Your task to perform on an android device: turn on sleep mode Image 0: 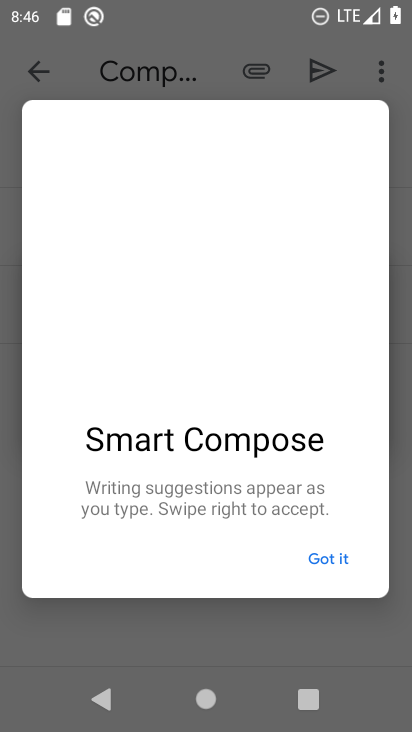
Step 0: press home button
Your task to perform on an android device: turn on sleep mode Image 1: 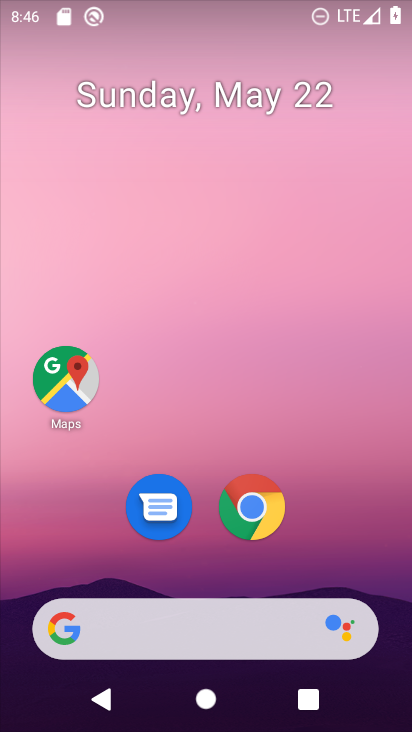
Step 1: drag from (161, 711) to (215, 46)
Your task to perform on an android device: turn on sleep mode Image 2: 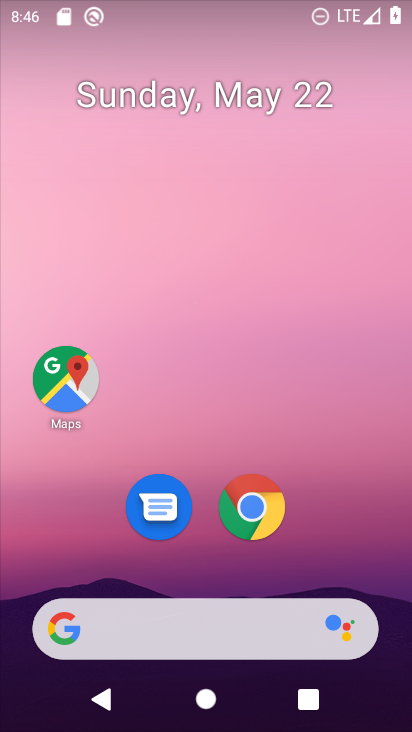
Step 2: drag from (163, 687) to (201, 96)
Your task to perform on an android device: turn on sleep mode Image 3: 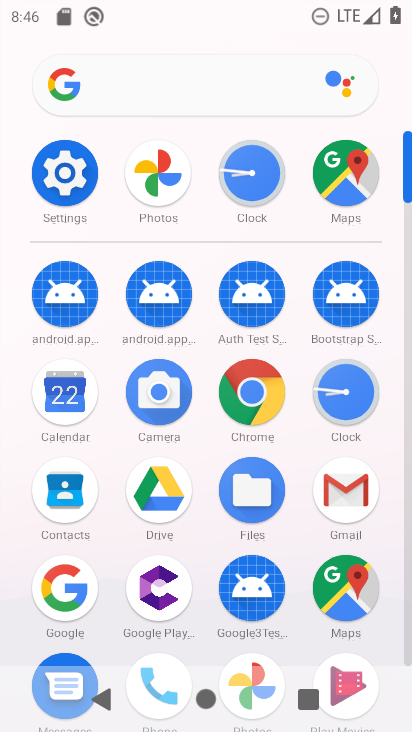
Step 3: click (55, 175)
Your task to perform on an android device: turn on sleep mode Image 4: 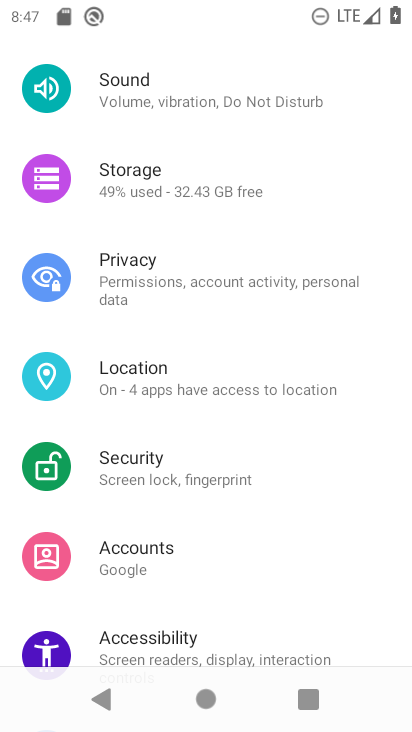
Step 4: drag from (291, 492) to (277, 122)
Your task to perform on an android device: turn on sleep mode Image 5: 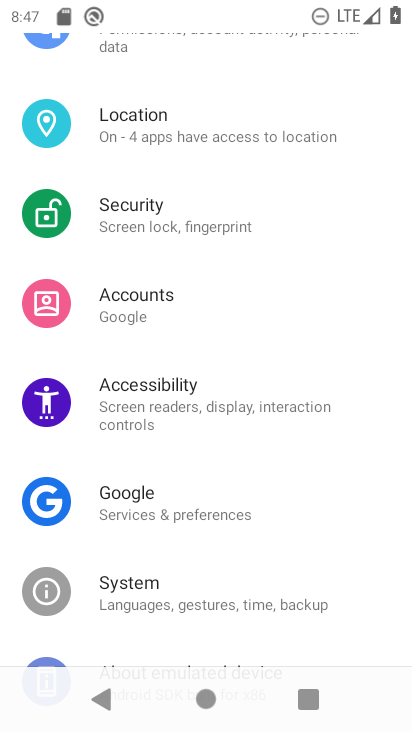
Step 5: drag from (260, 454) to (266, 128)
Your task to perform on an android device: turn on sleep mode Image 6: 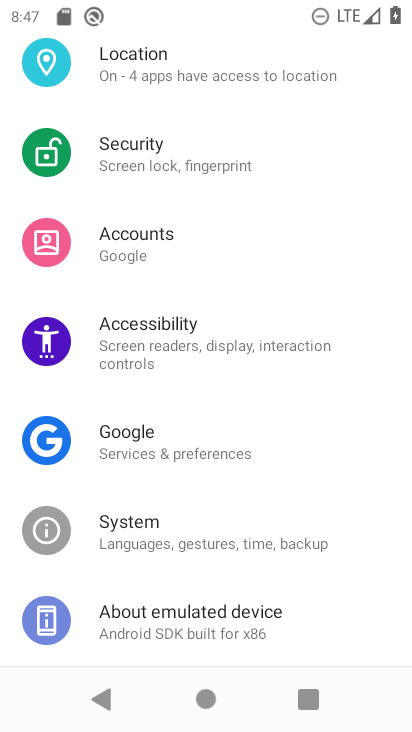
Step 6: drag from (249, 559) to (235, 232)
Your task to perform on an android device: turn on sleep mode Image 7: 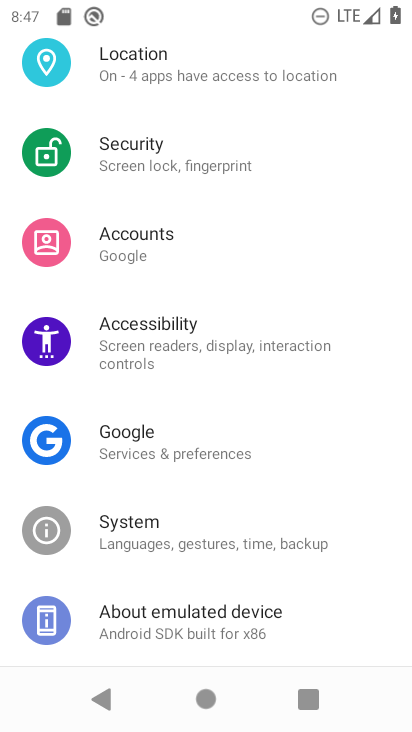
Step 7: drag from (292, 205) to (261, 659)
Your task to perform on an android device: turn on sleep mode Image 8: 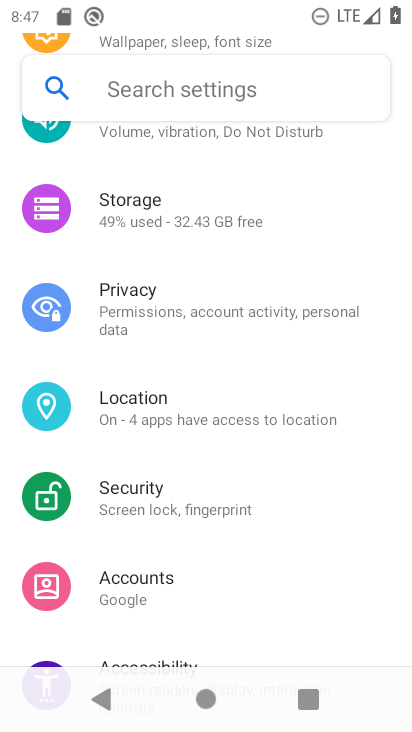
Step 8: drag from (273, 218) to (279, 499)
Your task to perform on an android device: turn on sleep mode Image 9: 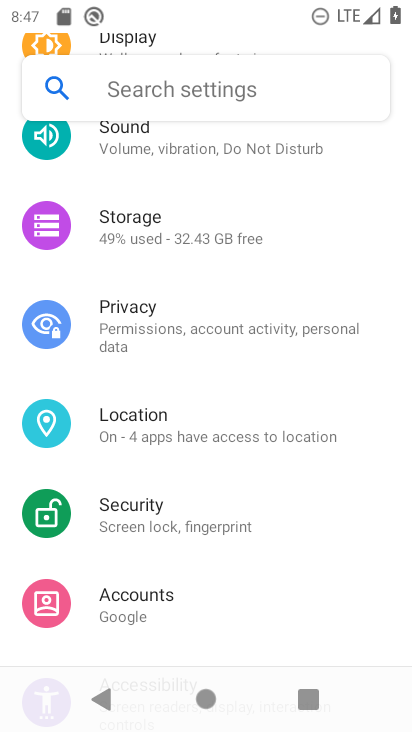
Step 9: drag from (268, 342) to (278, 682)
Your task to perform on an android device: turn on sleep mode Image 10: 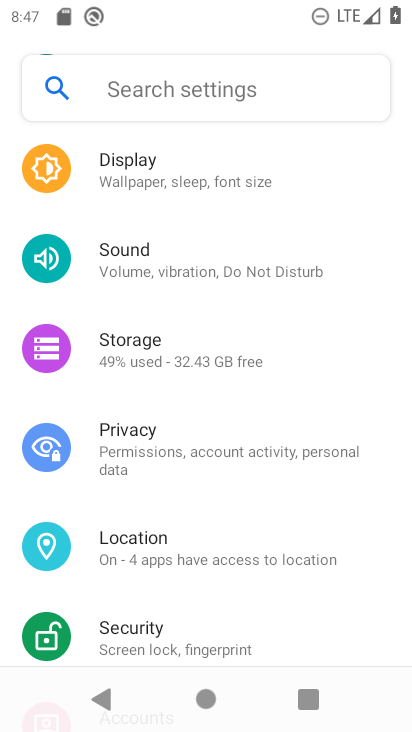
Step 10: click (246, 163)
Your task to perform on an android device: turn on sleep mode Image 11: 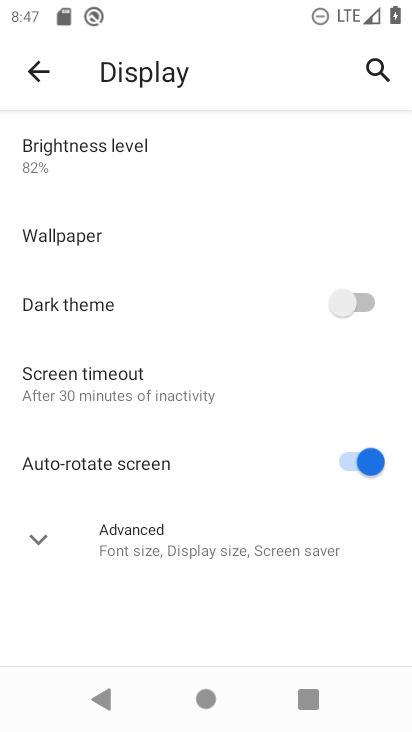
Step 11: task complete